Your task to perform on an android device: uninstall "HBO Max: Stream TV & Movies" Image 0: 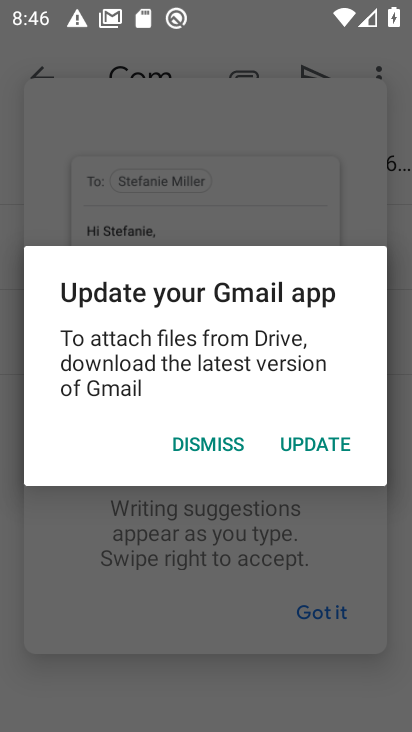
Step 0: press home button
Your task to perform on an android device: uninstall "HBO Max: Stream TV & Movies" Image 1: 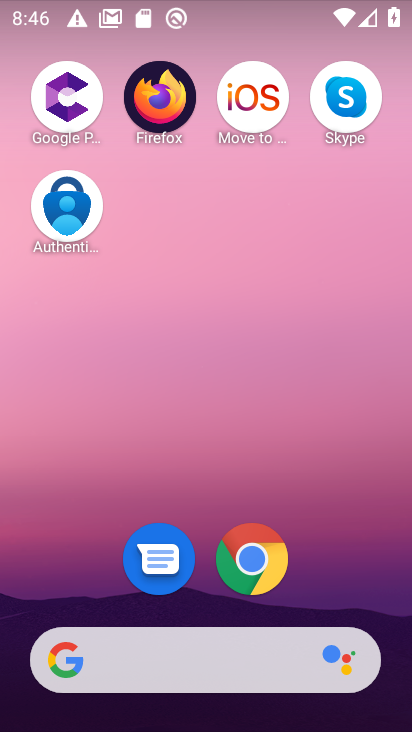
Step 1: drag from (336, 526) to (337, 22)
Your task to perform on an android device: uninstall "HBO Max: Stream TV & Movies" Image 2: 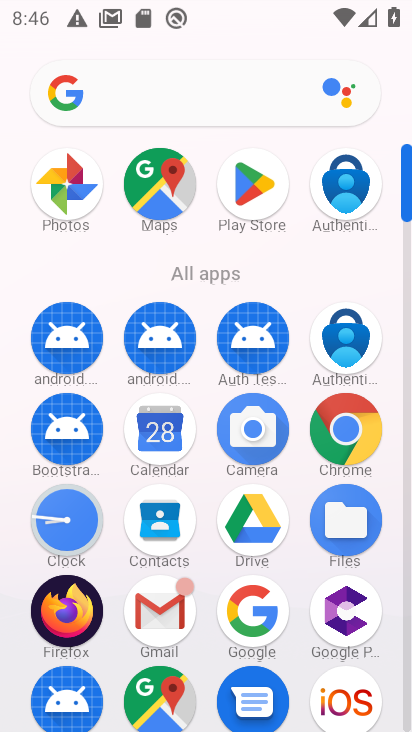
Step 2: click (244, 201)
Your task to perform on an android device: uninstall "HBO Max: Stream TV & Movies" Image 3: 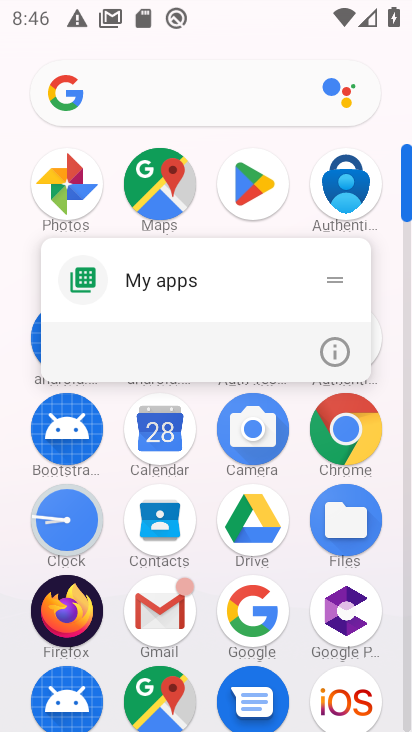
Step 3: click (244, 201)
Your task to perform on an android device: uninstall "HBO Max: Stream TV & Movies" Image 4: 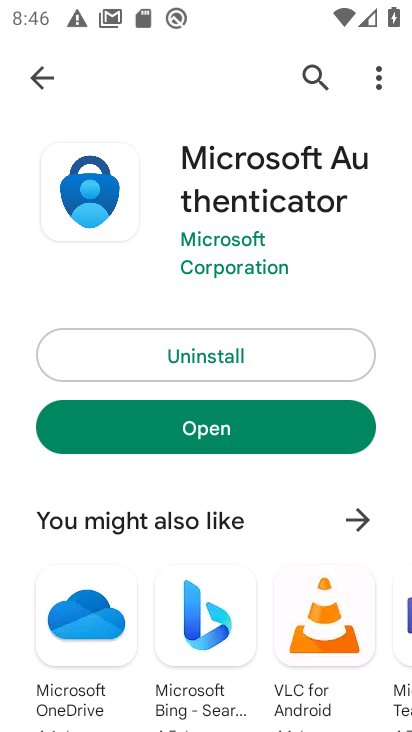
Step 4: click (305, 83)
Your task to perform on an android device: uninstall "HBO Max: Stream TV & Movies" Image 5: 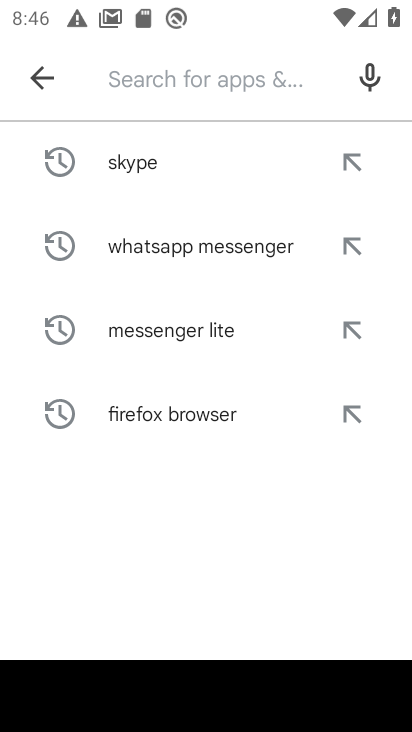
Step 5: type "HBO Max: Stream TV & Movies"
Your task to perform on an android device: uninstall "HBO Max: Stream TV & Movies" Image 6: 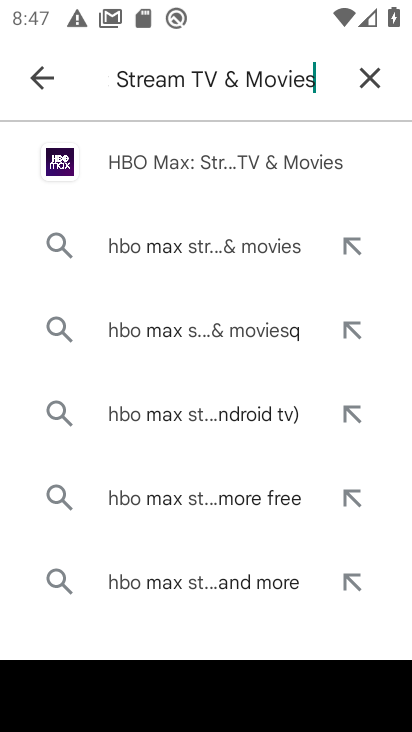
Step 6: click (190, 155)
Your task to perform on an android device: uninstall "HBO Max: Stream TV & Movies" Image 7: 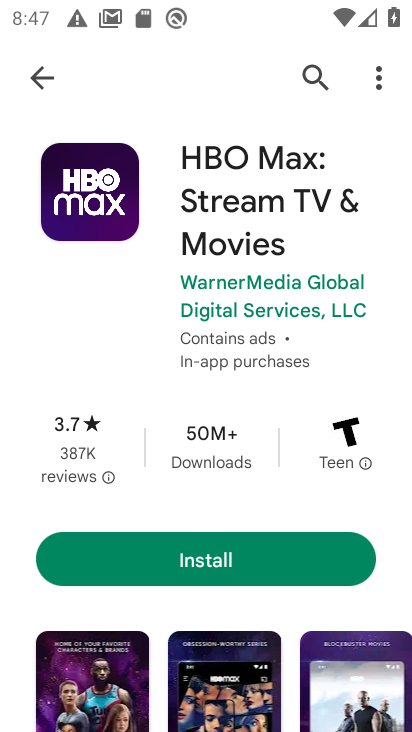
Step 7: task complete